Your task to perform on an android device: Go to Google Image 0: 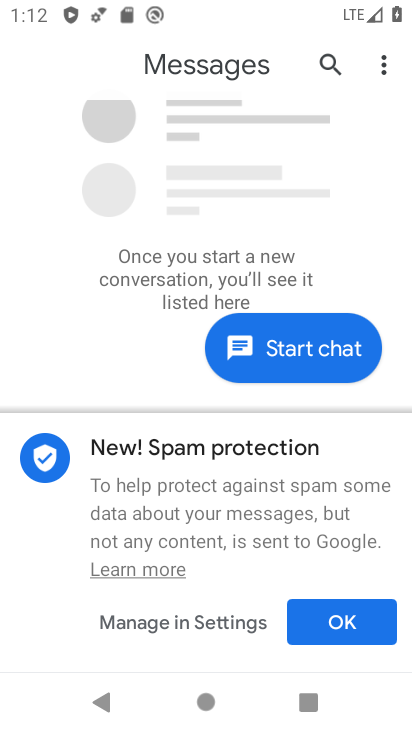
Step 0: press home button
Your task to perform on an android device: Go to Google Image 1: 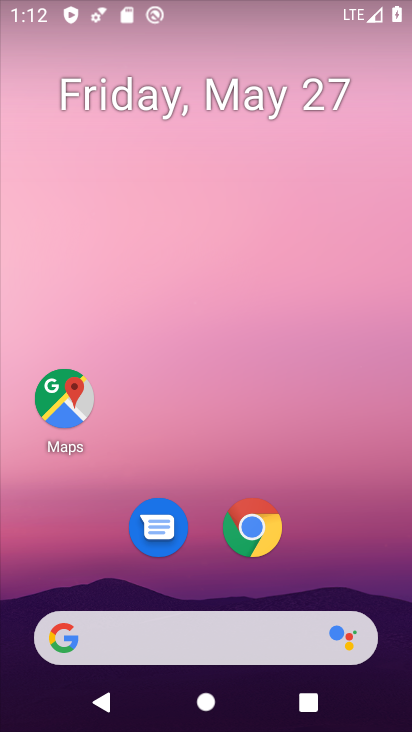
Step 1: drag from (247, 698) to (285, 44)
Your task to perform on an android device: Go to Google Image 2: 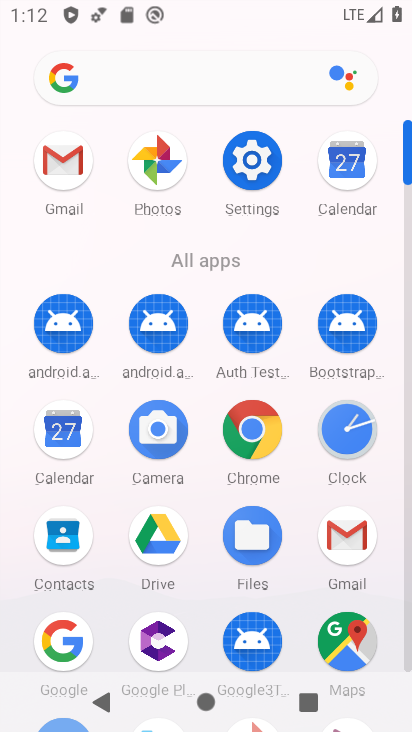
Step 2: click (60, 646)
Your task to perform on an android device: Go to Google Image 3: 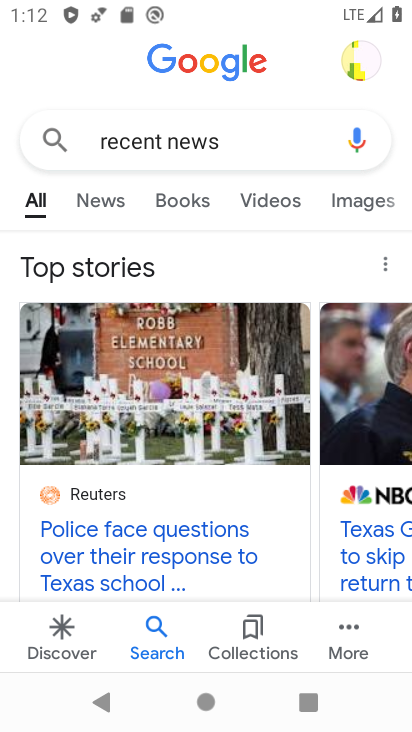
Step 3: task complete